Your task to perform on an android device: What's on my calendar today? Image 0: 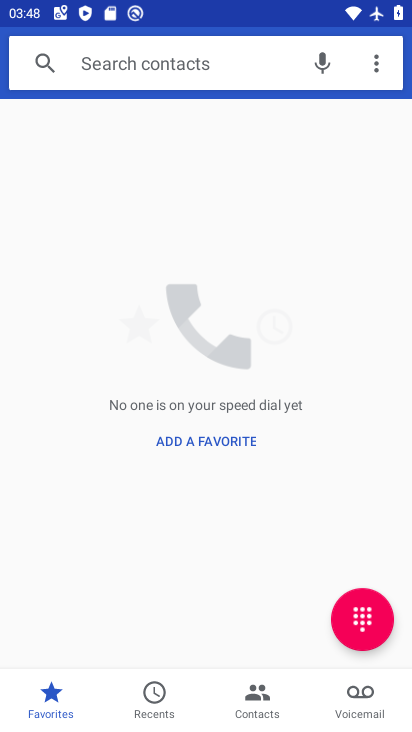
Step 0: press home button
Your task to perform on an android device: What's on my calendar today? Image 1: 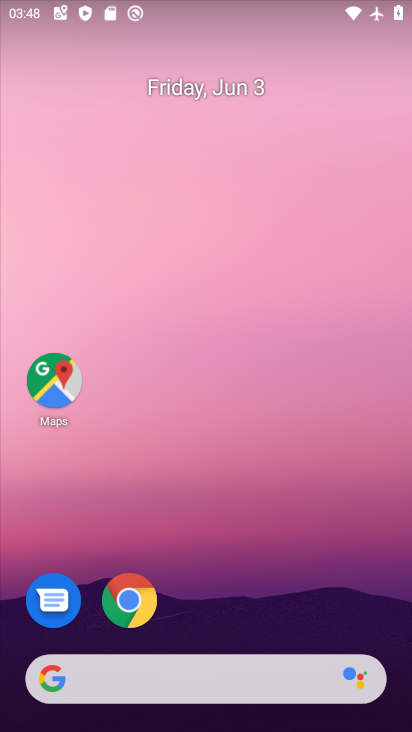
Step 1: drag from (236, 619) to (328, 11)
Your task to perform on an android device: What's on my calendar today? Image 2: 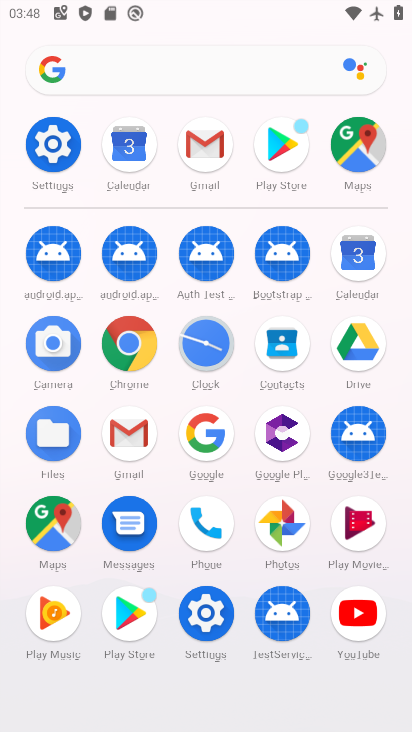
Step 2: click (365, 258)
Your task to perform on an android device: What's on my calendar today? Image 3: 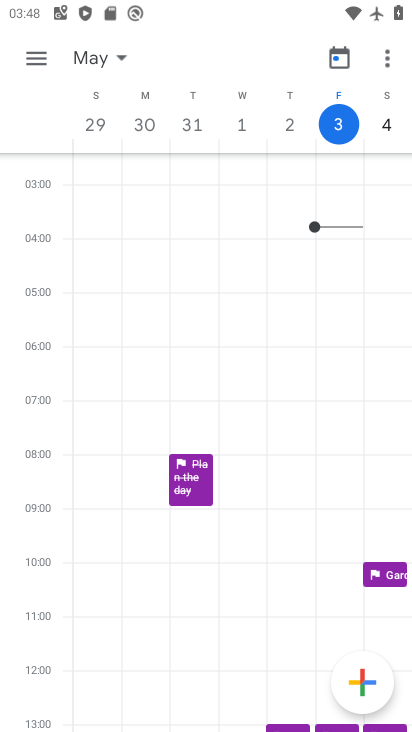
Step 3: click (26, 65)
Your task to perform on an android device: What's on my calendar today? Image 4: 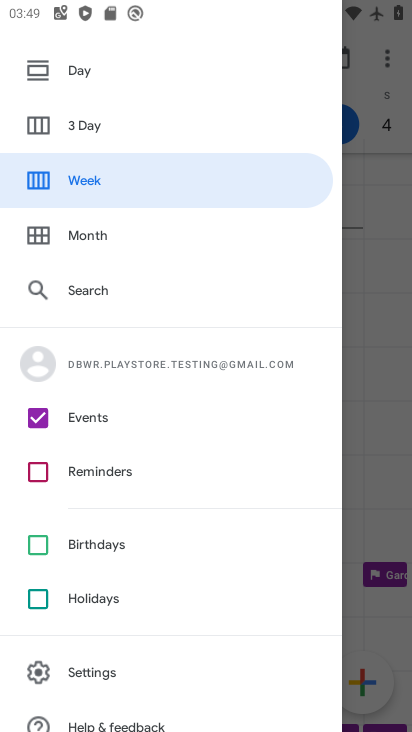
Step 4: click (88, 73)
Your task to perform on an android device: What's on my calendar today? Image 5: 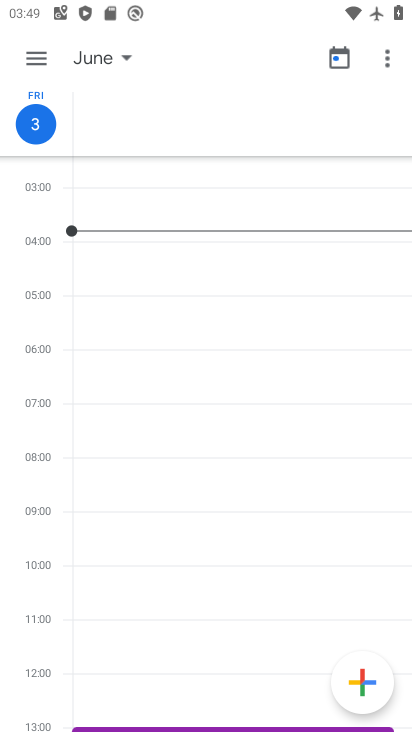
Step 5: task complete